Your task to perform on an android device: Open calendar and show me the fourth week of next month Image 0: 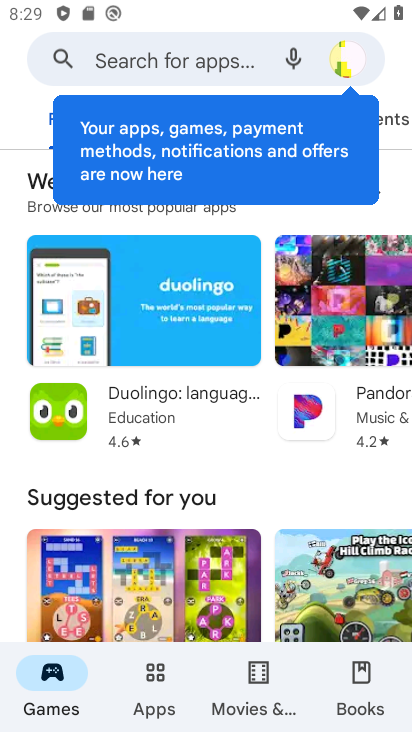
Step 0: press back button
Your task to perform on an android device: Open calendar and show me the fourth week of next month Image 1: 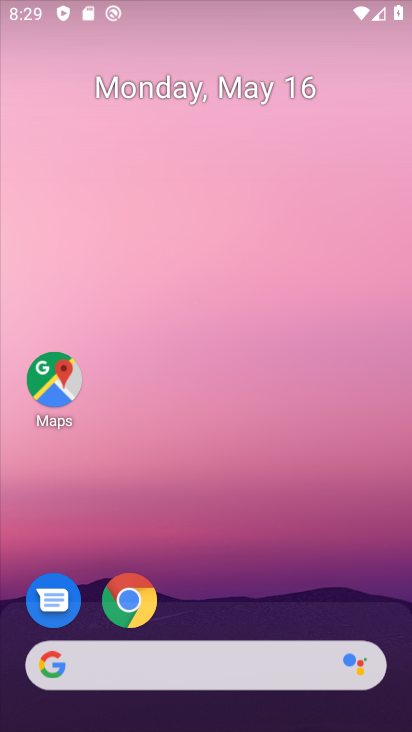
Step 1: drag from (274, 558) to (148, 3)
Your task to perform on an android device: Open calendar and show me the fourth week of next month Image 2: 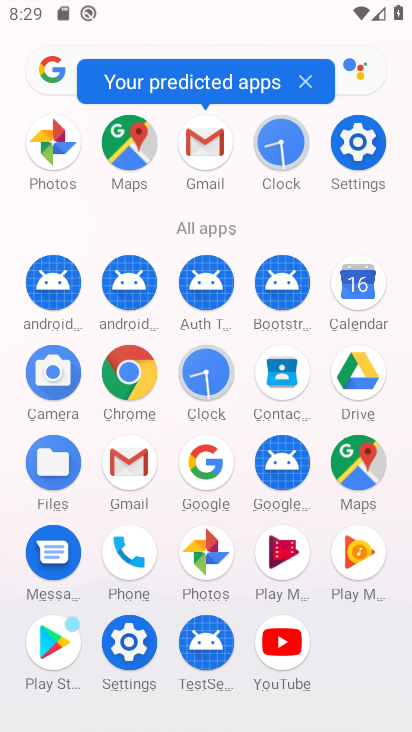
Step 2: click (354, 274)
Your task to perform on an android device: Open calendar and show me the fourth week of next month Image 3: 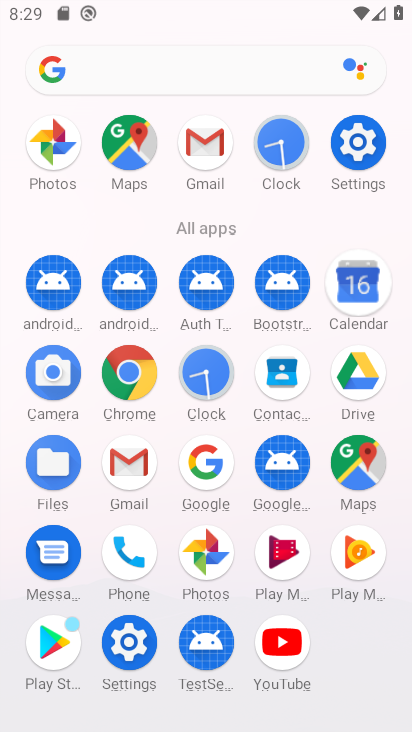
Step 3: click (367, 278)
Your task to perform on an android device: Open calendar and show me the fourth week of next month Image 4: 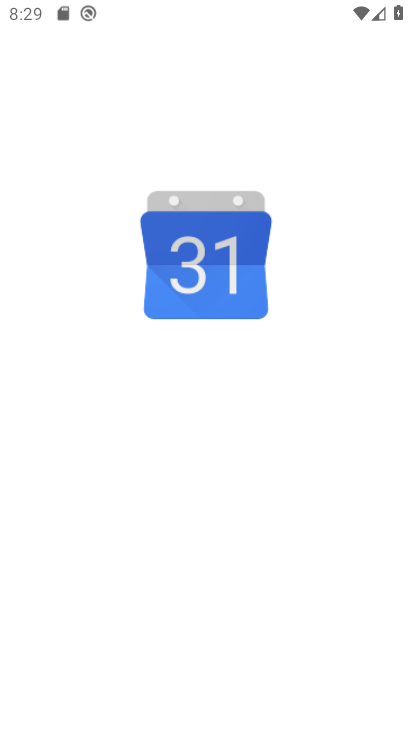
Step 4: click (357, 292)
Your task to perform on an android device: Open calendar and show me the fourth week of next month Image 5: 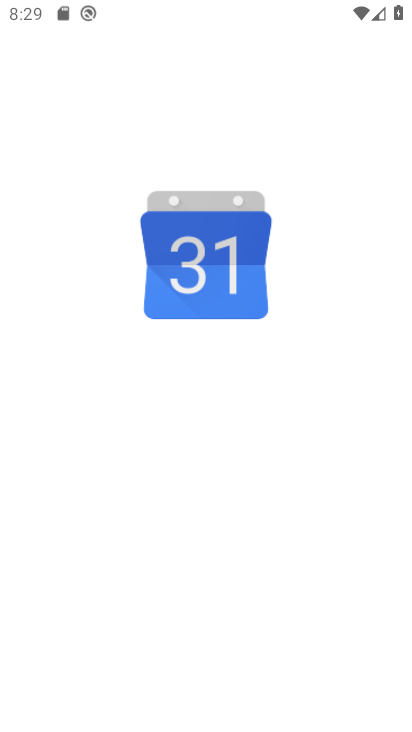
Step 5: click (357, 292)
Your task to perform on an android device: Open calendar and show me the fourth week of next month Image 6: 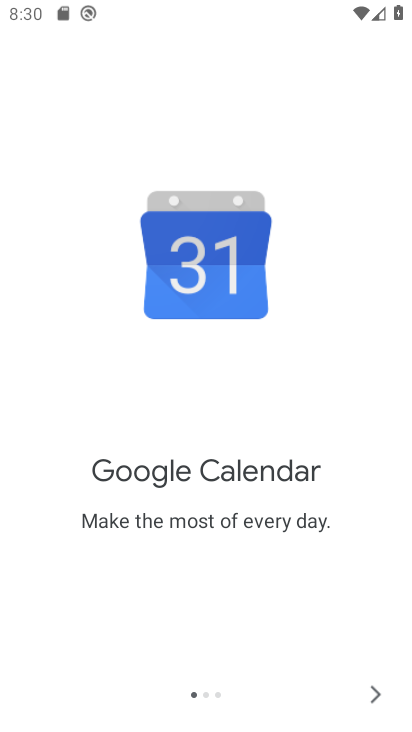
Step 6: click (374, 679)
Your task to perform on an android device: Open calendar and show me the fourth week of next month Image 7: 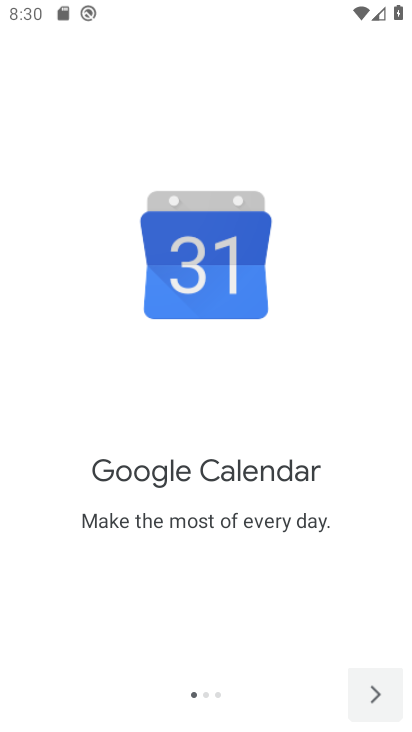
Step 7: click (373, 681)
Your task to perform on an android device: Open calendar and show me the fourth week of next month Image 8: 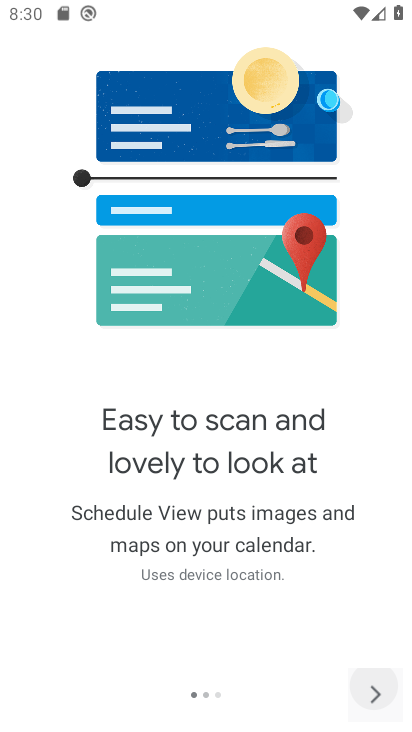
Step 8: click (374, 682)
Your task to perform on an android device: Open calendar and show me the fourth week of next month Image 9: 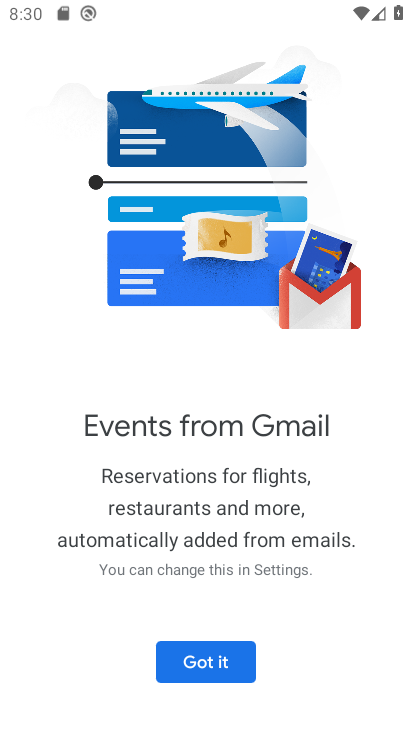
Step 9: click (379, 682)
Your task to perform on an android device: Open calendar and show me the fourth week of next month Image 10: 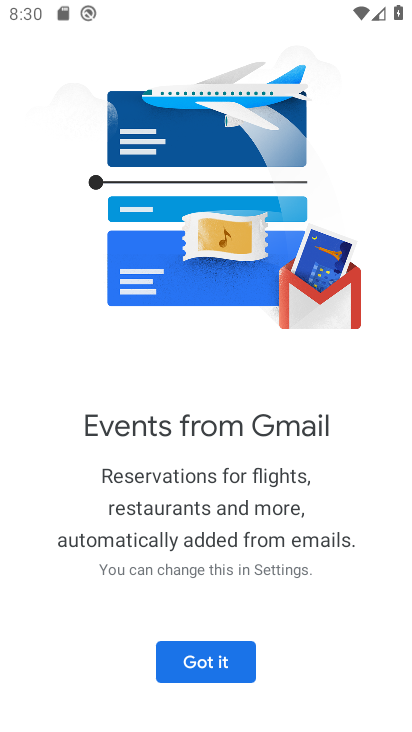
Step 10: click (241, 659)
Your task to perform on an android device: Open calendar and show me the fourth week of next month Image 11: 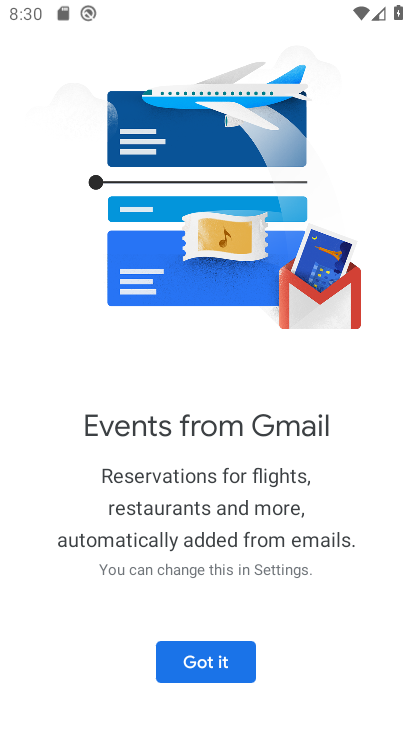
Step 11: click (240, 660)
Your task to perform on an android device: Open calendar and show me the fourth week of next month Image 12: 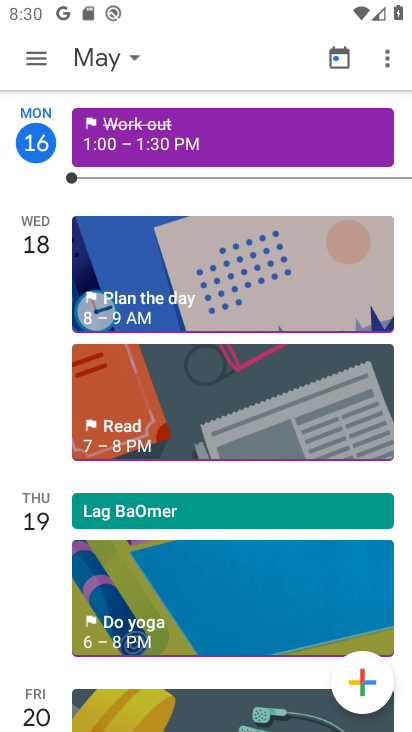
Step 12: click (129, 52)
Your task to perform on an android device: Open calendar and show me the fourth week of next month Image 13: 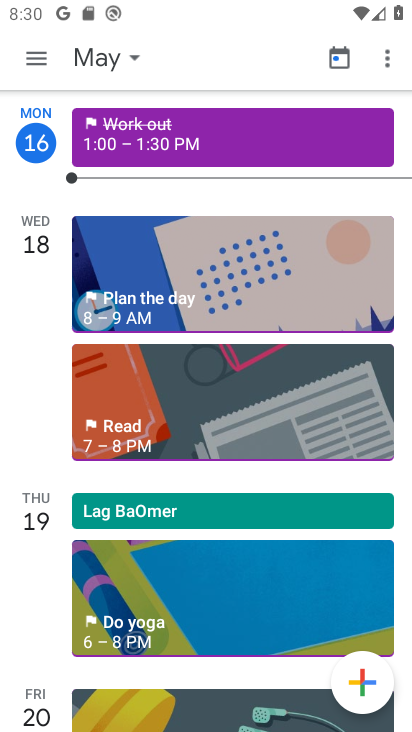
Step 13: click (130, 52)
Your task to perform on an android device: Open calendar and show me the fourth week of next month Image 14: 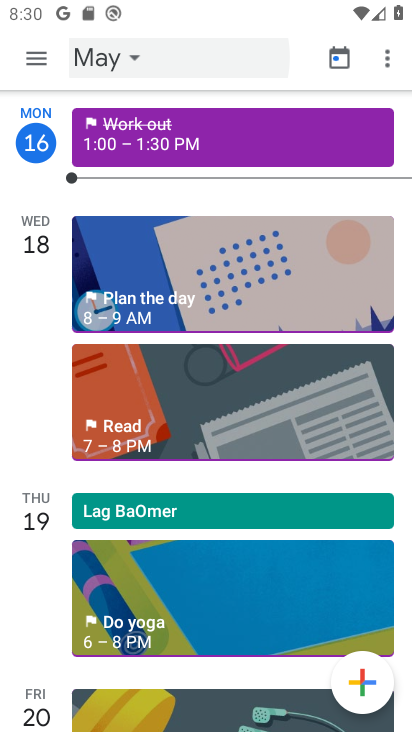
Step 14: click (130, 52)
Your task to perform on an android device: Open calendar and show me the fourth week of next month Image 15: 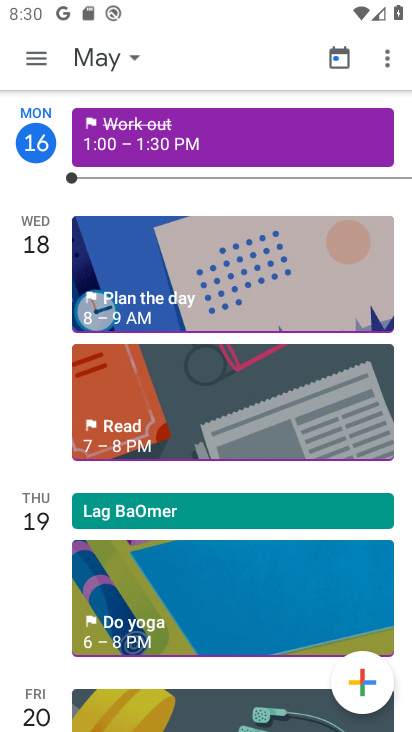
Step 15: click (134, 47)
Your task to perform on an android device: Open calendar and show me the fourth week of next month Image 16: 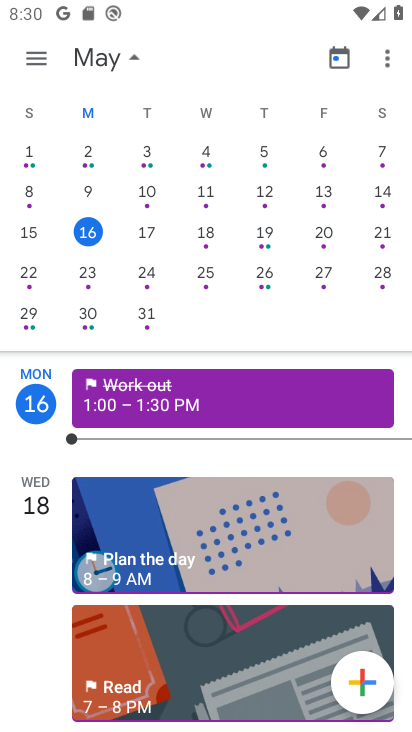
Step 16: drag from (291, 223) to (92, 133)
Your task to perform on an android device: Open calendar and show me the fourth week of next month Image 17: 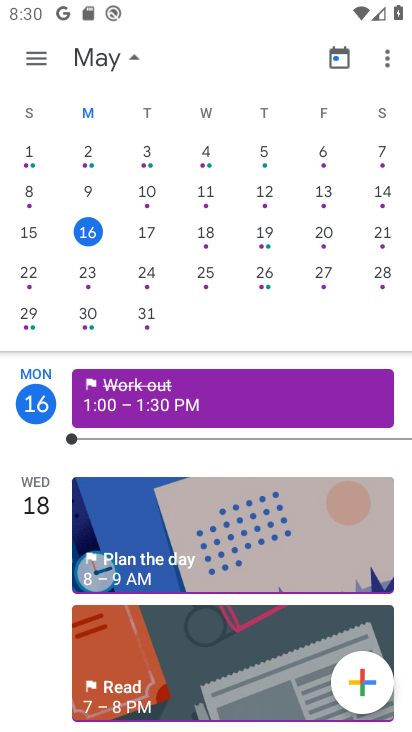
Step 17: drag from (256, 200) to (86, 194)
Your task to perform on an android device: Open calendar and show me the fourth week of next month Image 18: 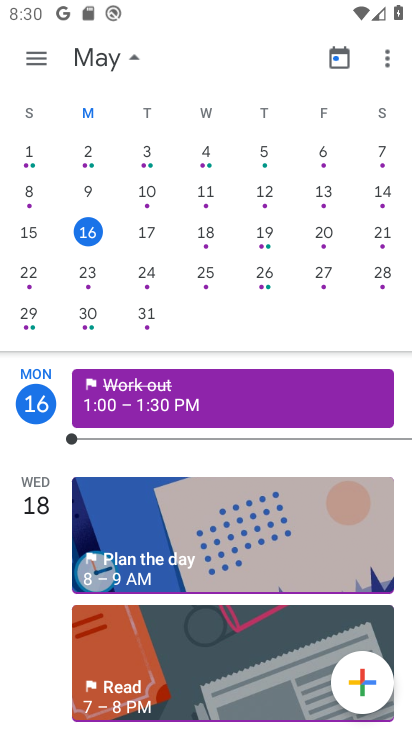
Step 18: drag from (152, 227) to (14, 258)
Your task to perform on an android device: Open calendar and show me the fourth week of next month Image 19: 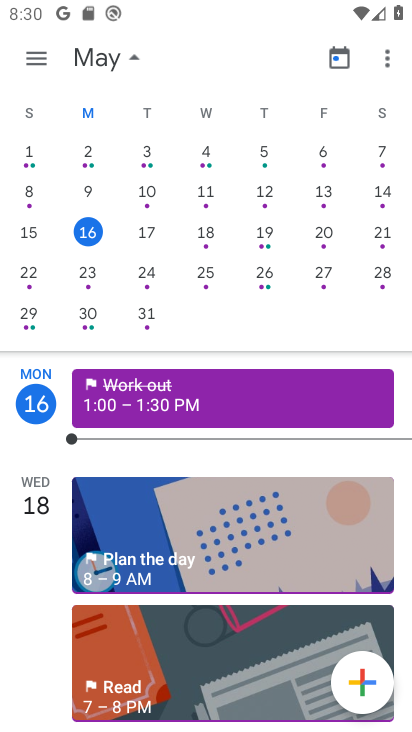
Step 19: drag from (225, 225) to (8, 267)
Your task to perform on an android device: Open calendar and show me the fourth week of next month Image 20: 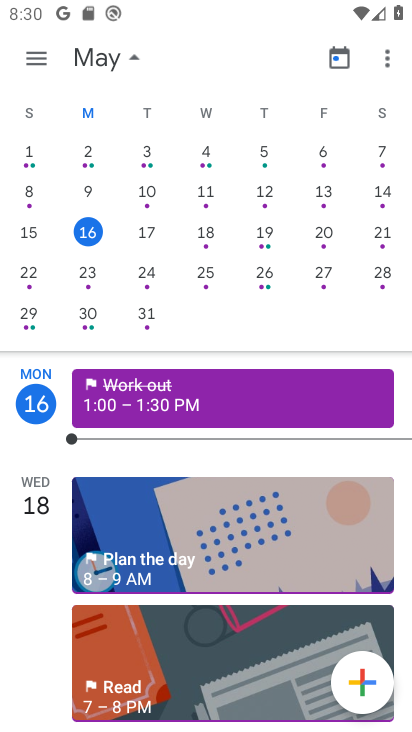
Step 20: drag from (139, 225) to (15, 171)
Your task to perform on an android device: Open calendar and show me the fourth week of next month Image 21: 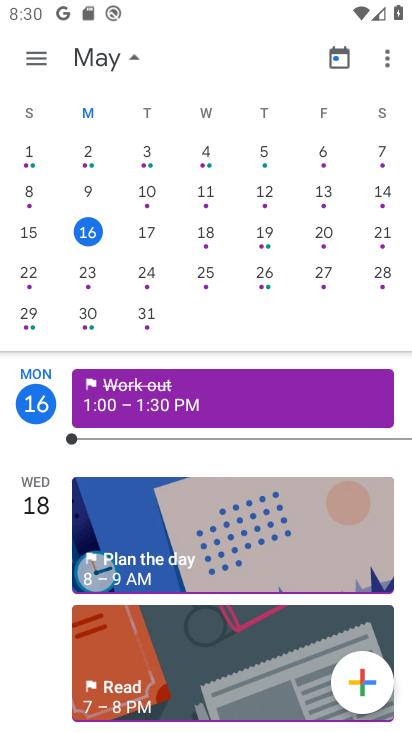
Step 21: drag from (162, 233) to (0, 226)
Your task to perform on an android device: Open calendar and show me the fourth week of next month Image 22: 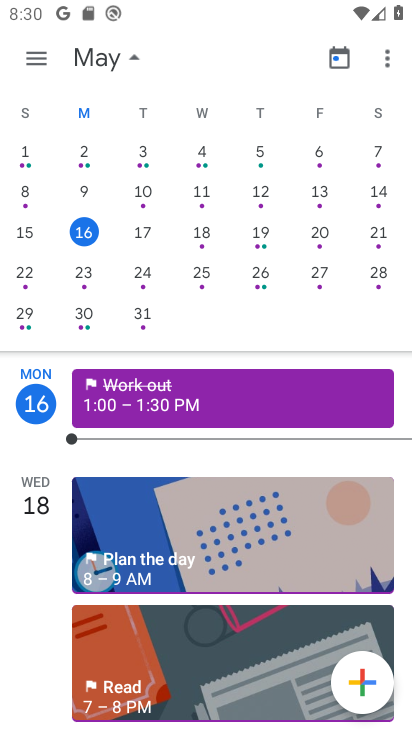
Step 22: drag from (198, 214) to (26, 238)
Your task to perform on an android device: Open calendar and show me the fourth week of next month Image 23: 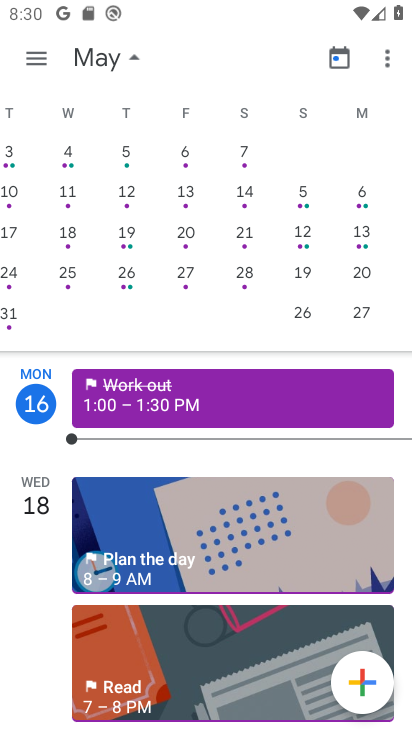
Step 23: drag from (76, 232) to (81, 280)
Your task to perform on an android device: Open calendar and show me the fourth week of next month Image 24: 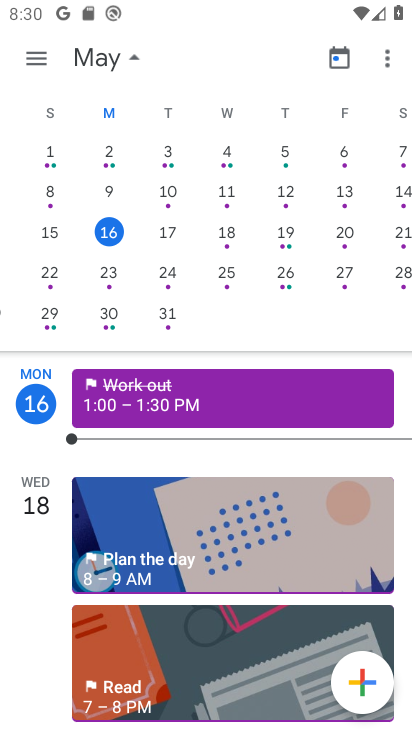
Step 24: drag from (180, 253) to (18, 279)
Your task to perform on an android device: Open calendar and show me the fourth week of next month Image 25: 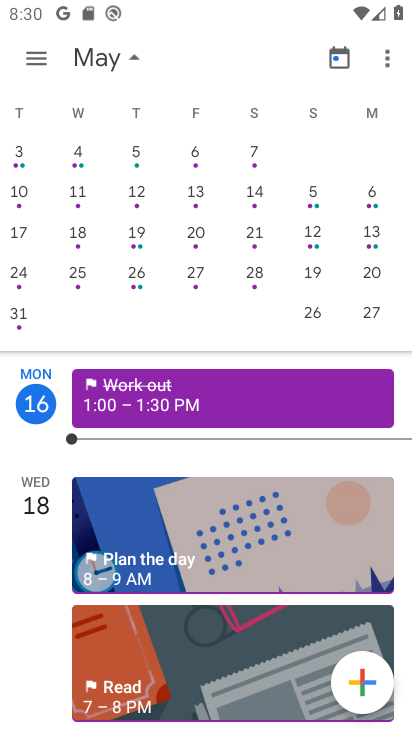
Step 25: drag from (176, 236) to (14, 218)
Your task to perform on an android device: Open calendar and show me the fourth week of next month Image 26: 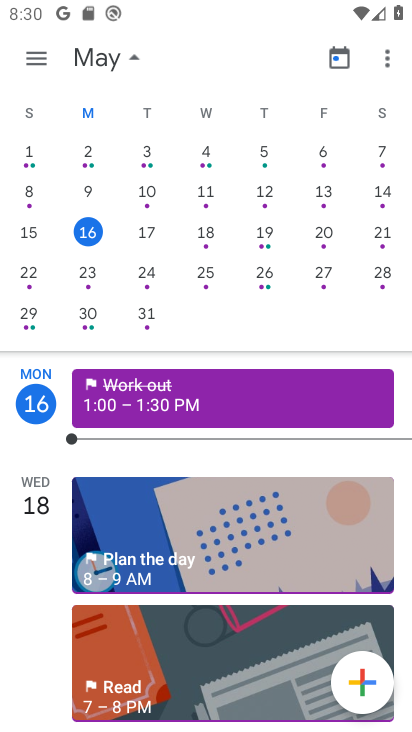
Step 26: drag from (193, 204) to (25, 238)
Your task to perform on an android device: Open calendar and show me the fourth week of next month Image 27: 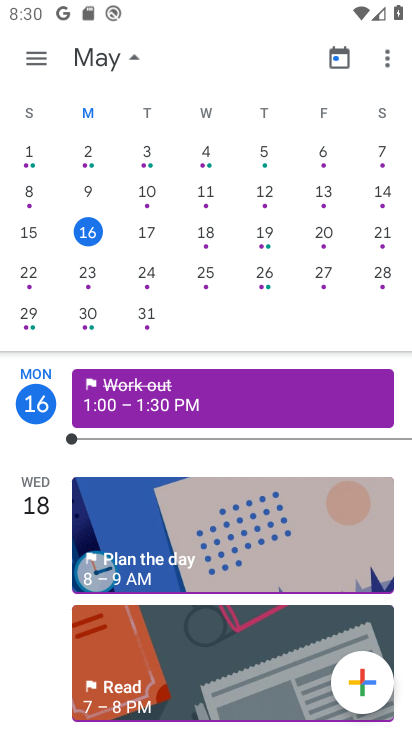
Step 27: drag from (209, 225) to (18, 262)
Your task to perform on an android device: Open calendar and show me the fourth week of next month Image 28: 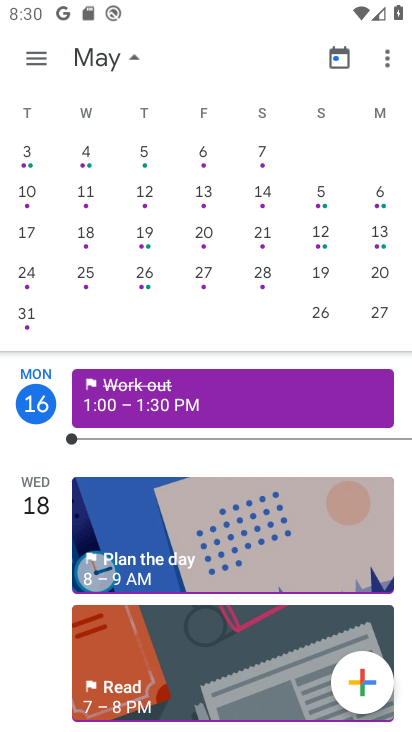
Step 28: drag from (136, 220) to (69, 270)
Your task to perform on an android device: Open calendar and show me the fourth week of next month Image 29: 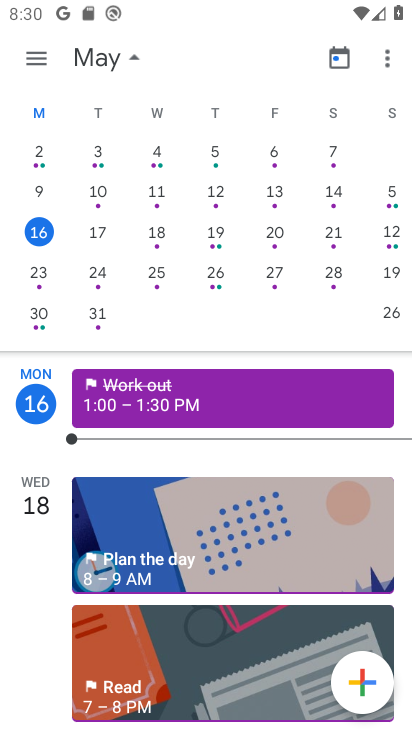
Step 29: drag from (266, 245) to (43, 257)
Your task to perform on an android device: Open calendar and show me the fourth week of next month Image 30: 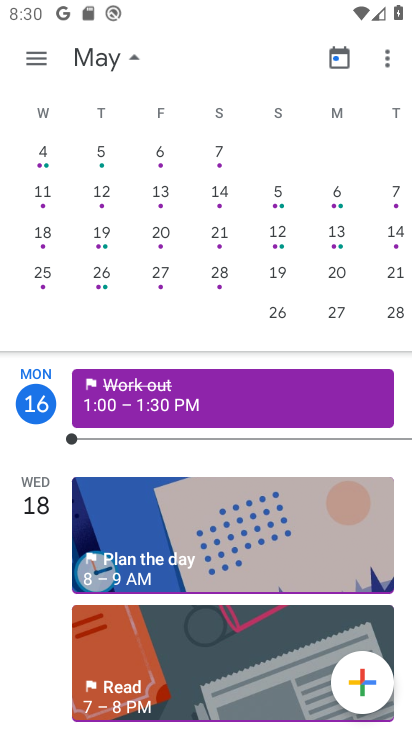
Step 30: drag from (275, 226) to (82, 190)
Your task to perform on an android device: Open calendar and show me the fourth week of next month Image 31: 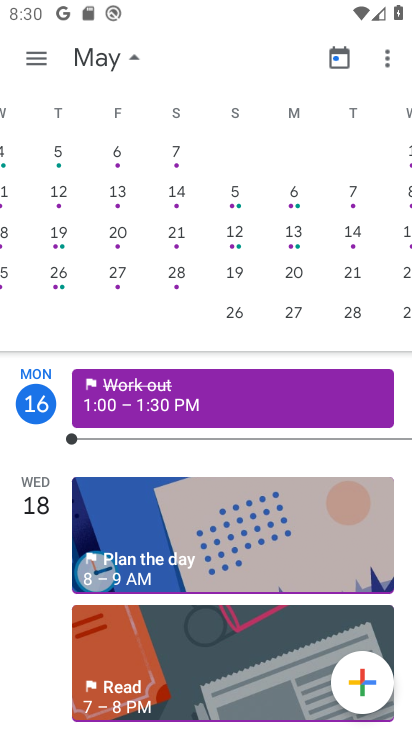
Step 31: drag from (103, 180) to (8, 212)
Your task to perform on an android device: Open calendar and show me the fourth week of next month Image 32: 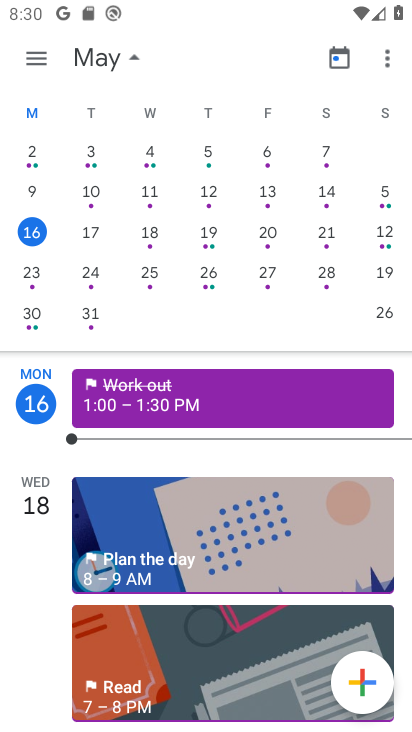
Step 32: drag from (252, 212) to (77, 175)
Your task to perform on an android device: Open calendar and show me the fourth week of next month Image 33: 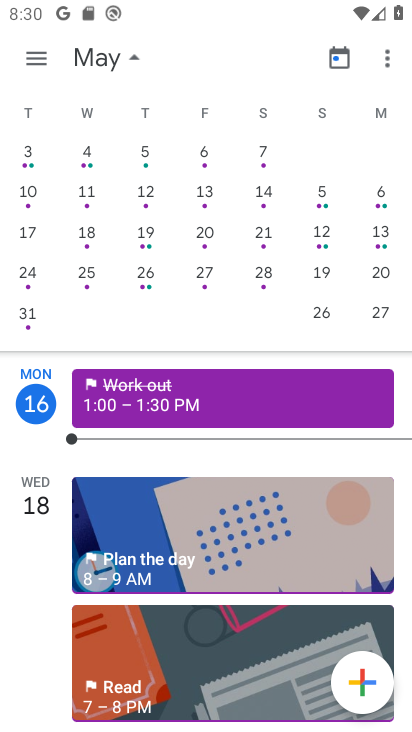
Step 33: drag from (213, 175) to (4, 243)
Your task to perform on an android device: Open calendar and show me the fourth week of next month Image 34: 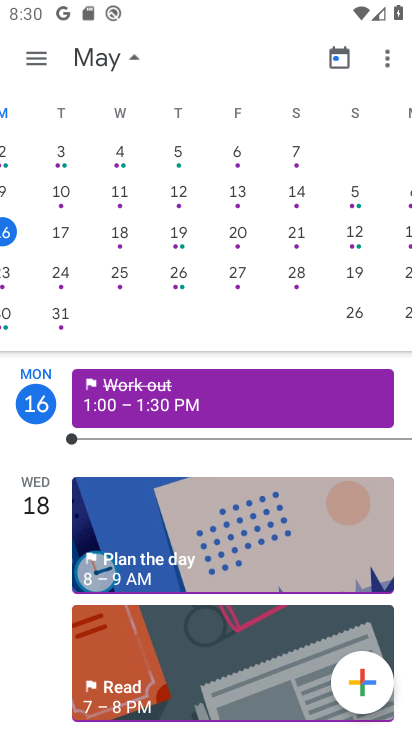
Step 34: drag from (383, 182) to (22, 215)
Your task to perform on an android device: Open calendar and show me the fourth week of next month Image 35: 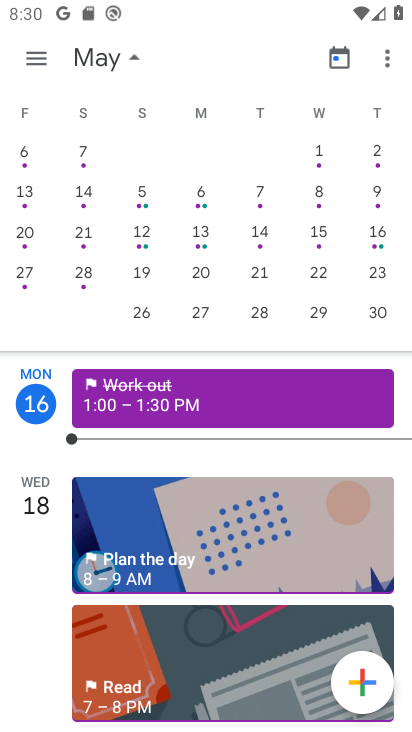
Step 35: drag from (214, 207) to (17, 199)
Your task to perform on an android device: Open calendar and show me the fourth week of next month Image 36: 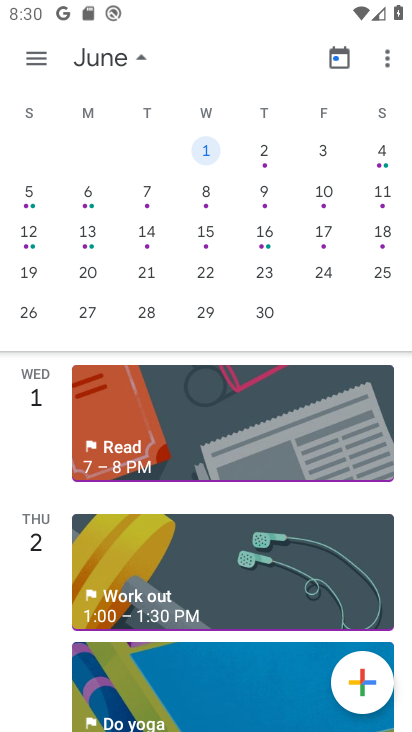
Step 36: click (205, 272)
Your task to perform on an android device: Open calendar and show me the fourth week of next month Image 37: 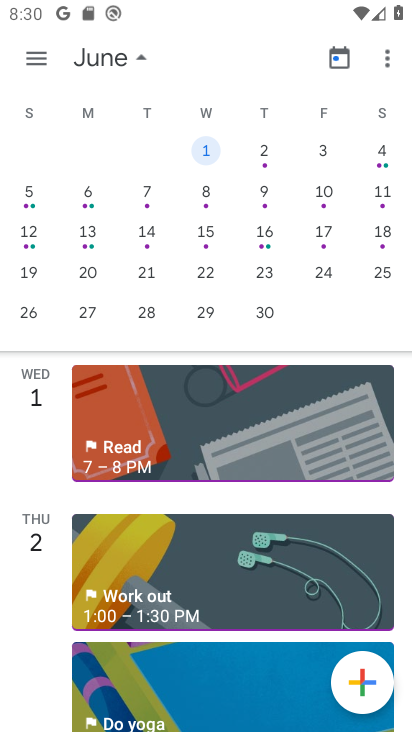
Step 37: click (208, 280)
Your task to perform on an android device: Open calendar and show me the fourth week of next month Image 38: 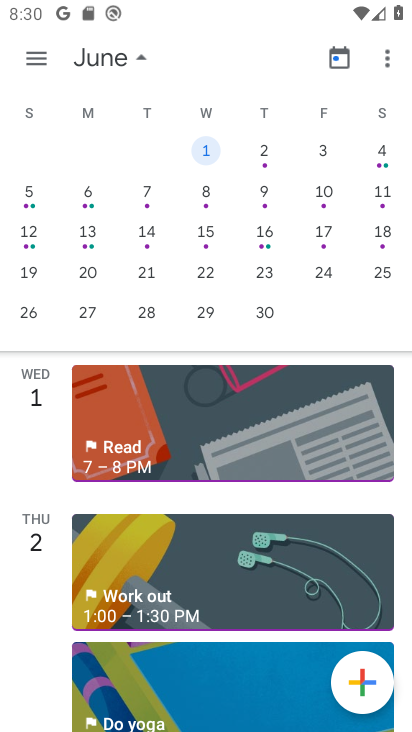
Step 38: click (205, 267)
Your task to perform on an android device: Open calendar and show me the fourth week of next month Image 39: 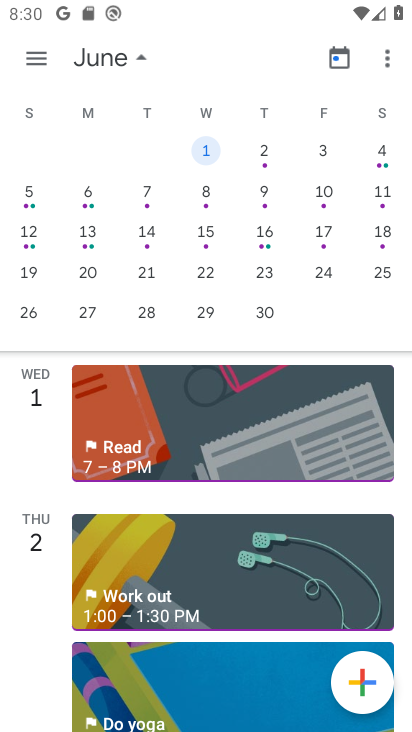
Step 39: click (205, 267)
Your task to perform on an android device: Open calendar and show me the fourth week of next month Image 40: 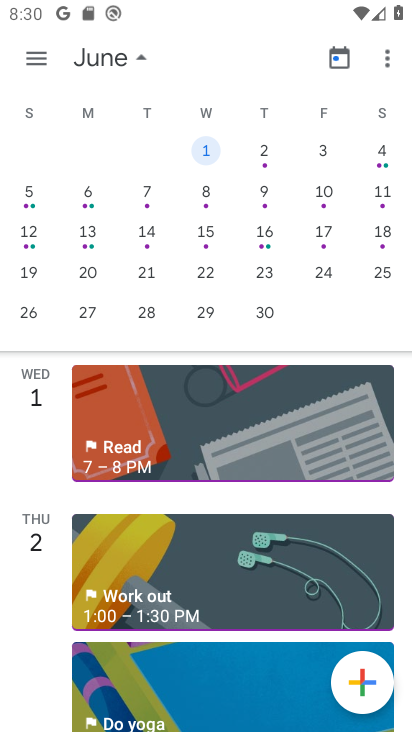
Step 40: click (205, 267)
Your task to perform on an android device: Open calendar and show me the fourth week of next month Image 41: 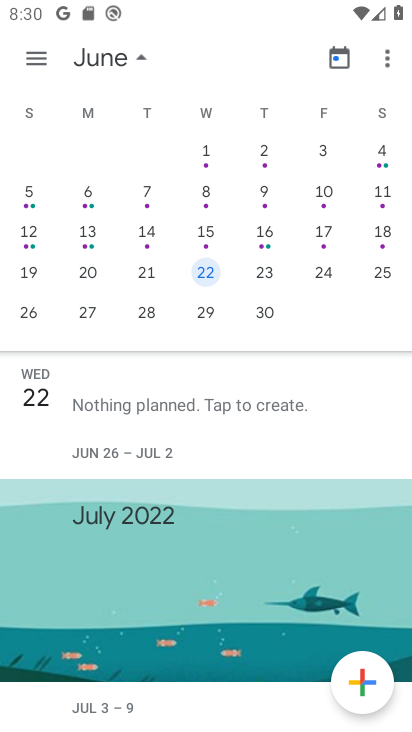
Step 41: task complete